Your task to perform on an android device: Open the web browser Image 0: 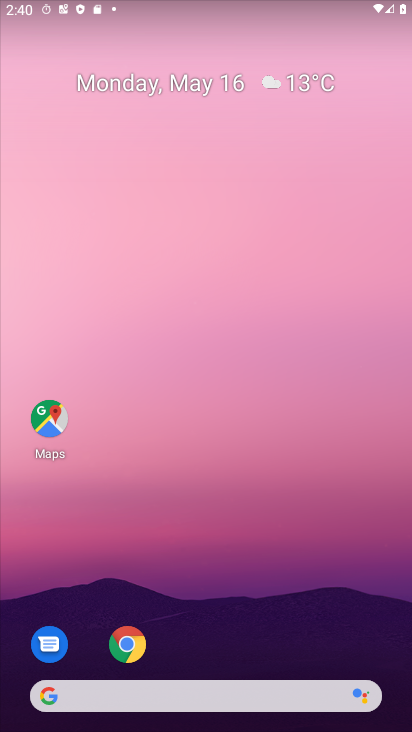
Step 0: drag from (225, 537) to (228, 221)
Your task to perform on an android device: Open the web browser Image 1: 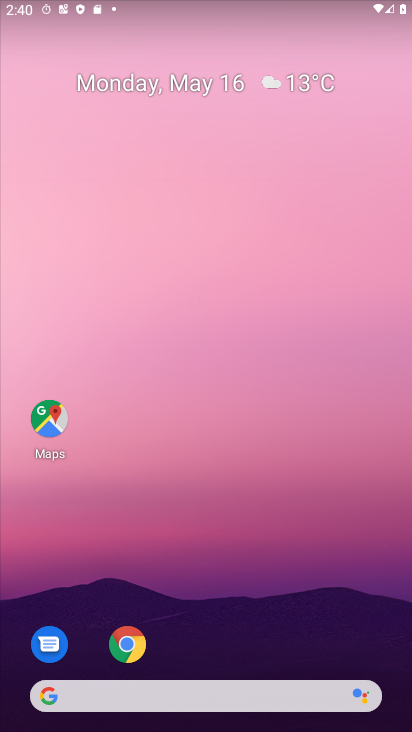
Step 1: drag from (180, 692) to (208, 196)
Your task to perform on an android device: Open the web browser Image 2: 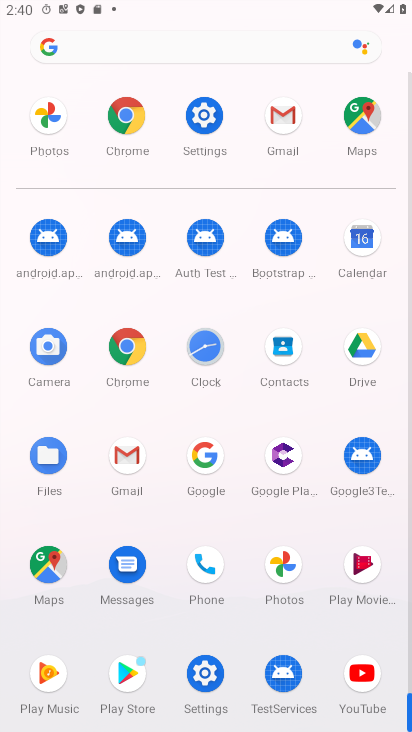
Step 2: click (132, 119)
Your task to perform on an android device: Open the web browser Image 3: 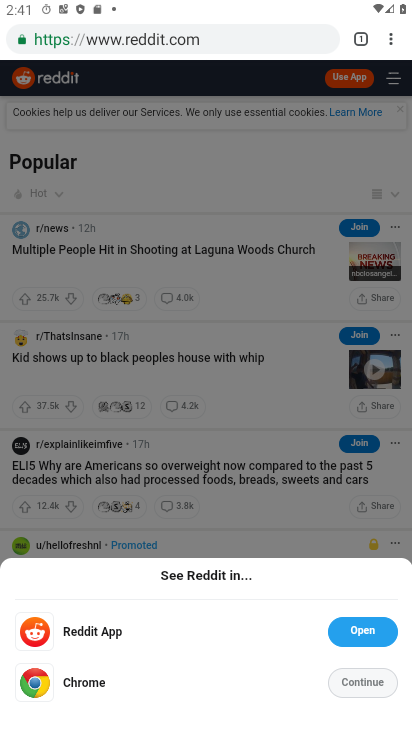
Step 3: task complete